Your task to perform on an android device: What's on my calendar tomorrow? Image 0: 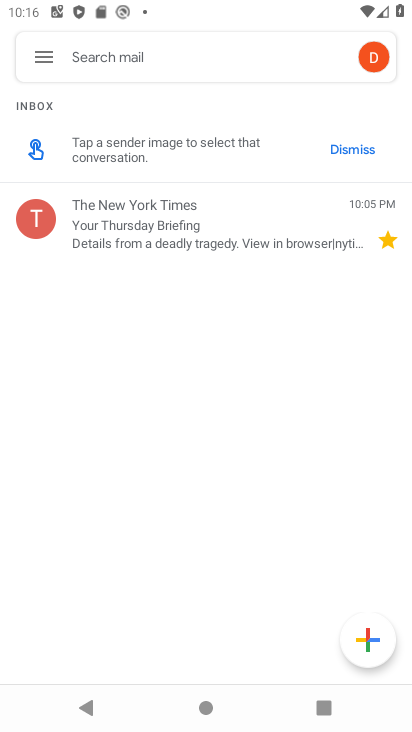
Step 0: press back button
Your task to perform on an android device: What's on my calendar tomorrow? Image 1: 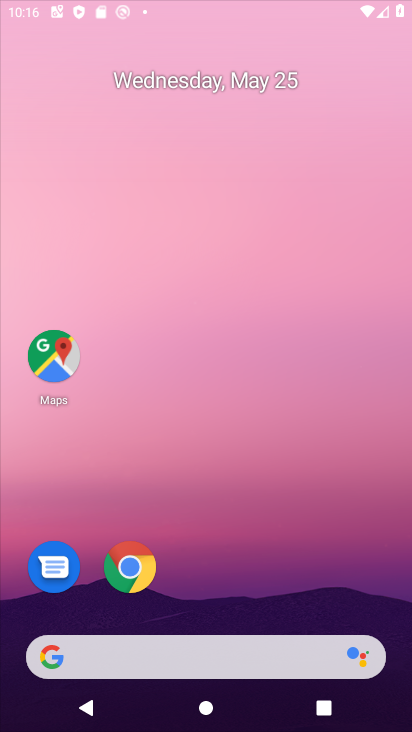
Step 1: press back button
Your task to perform on an android device: What's on my calendar tomorrow? Image 2: 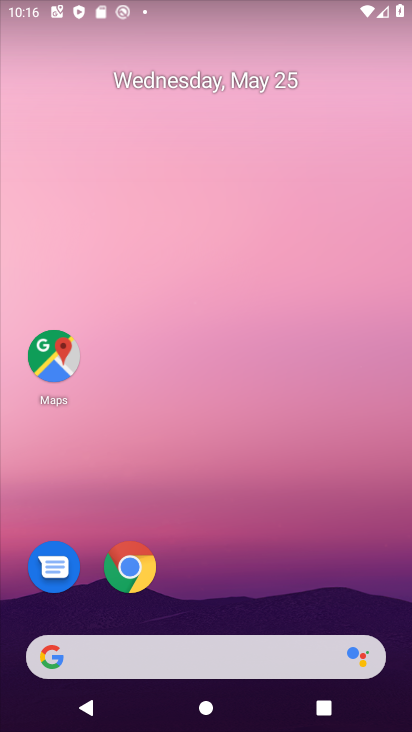
Step 2: press back button
Your task to perform on an android device: What's on my calendar tomorrow? Image 3: 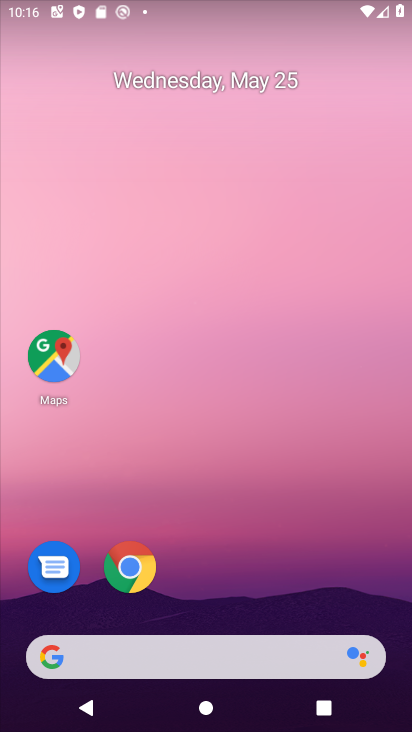
Step 3: drag from (280, 606) to (210, 9)
Your task to perform on an android device: What's on my calendar tomorrow? Image 4: 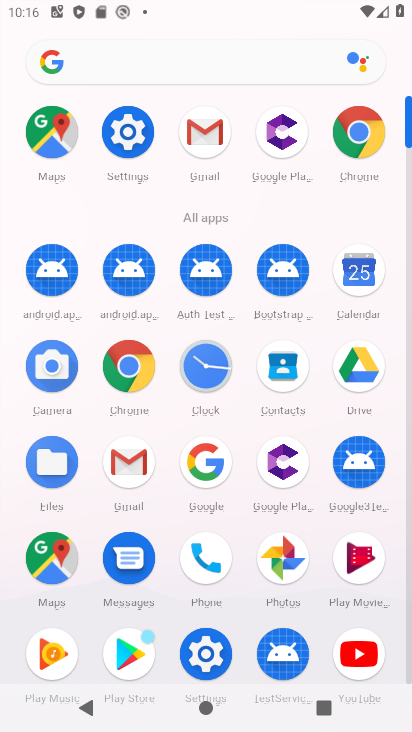
Step 4: click (355, 279)
Your task to perform on an android device: What's on my calendar tomorrow? Image 5: 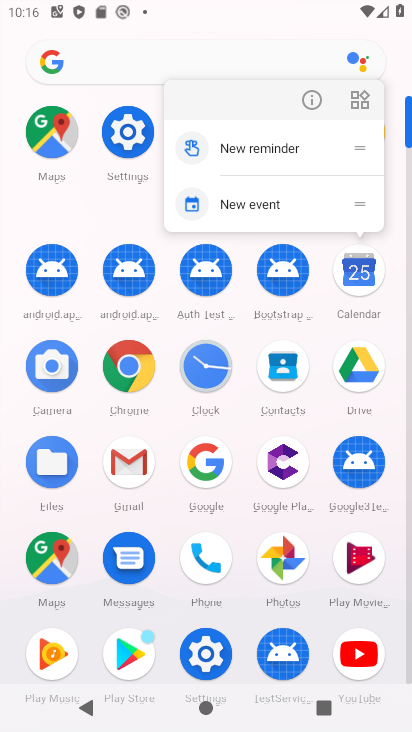
Step 5: click (357, 277)
Your task to perform on an android device: What's on my calendar tomorrow? Image 6: 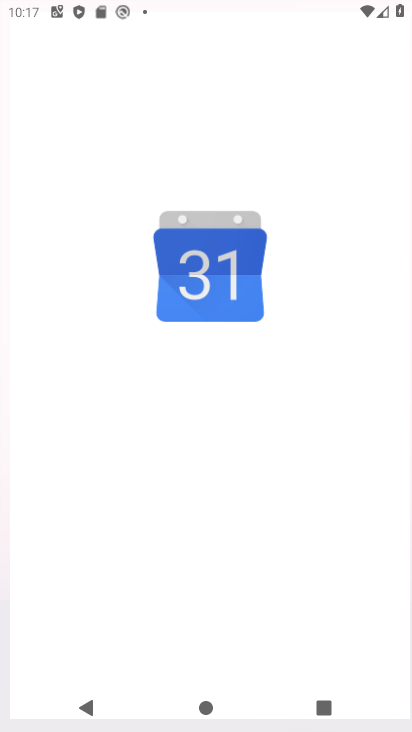
Step 6: click (357, 277)
Your task to perform on an android device: What's on my calendar tomorrow? Image 7: 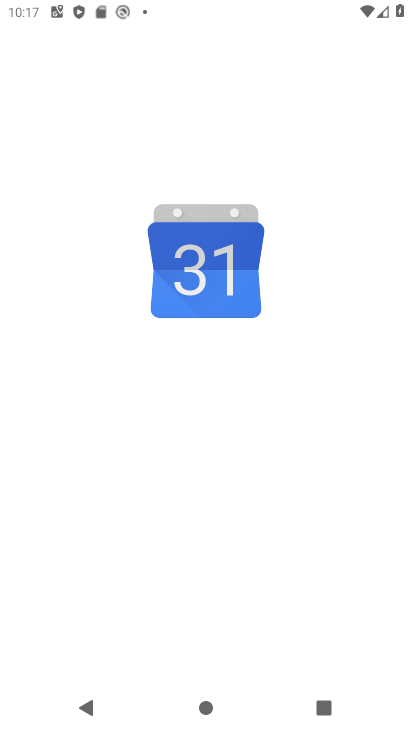
Step 7: click (357, 277)
Your task to perform on an android device: What's on my calendar tomorrow? Image 8: 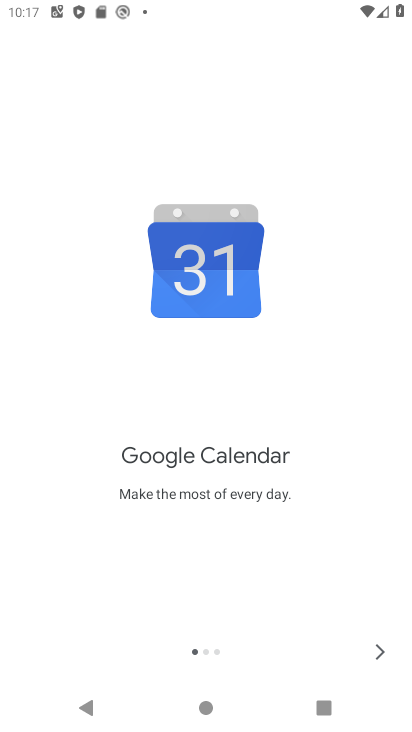
Step 8: click (383, 648)
Your task to perform on an android device: What's on my calendar tomorrow? Image 9: 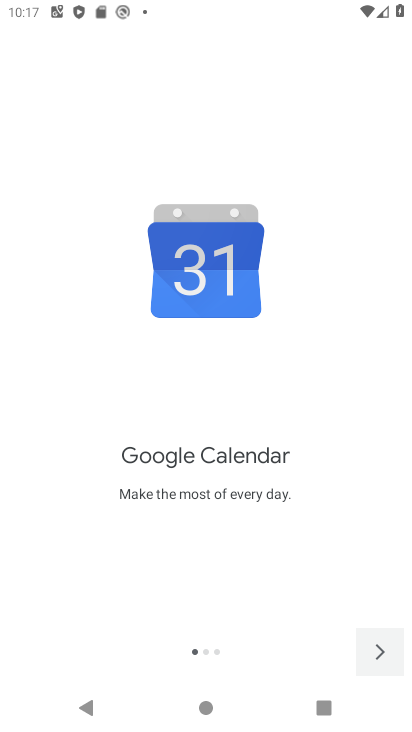
Step 9: click (383, 648)
Your task to perform on an android device: What's on my calendar tomorrow? Image 10: 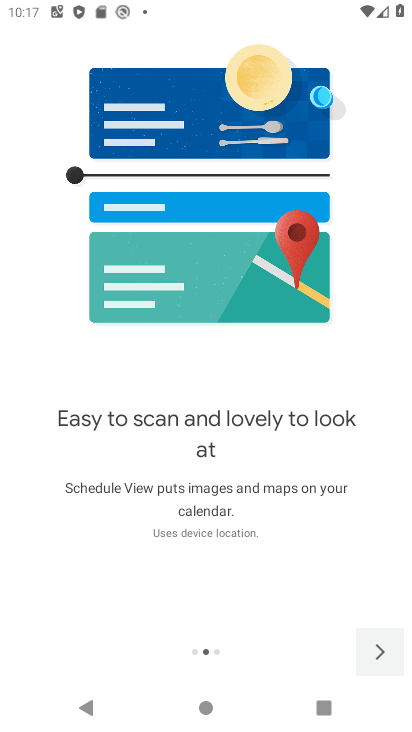
Step 10: click (383, 648)
Your task to perform on an android device: What's on my calendar tomorrow? Image 11: 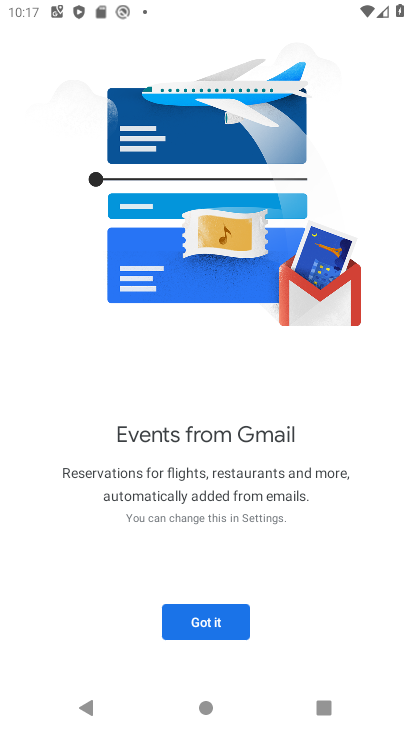
Step 11: click (361, 655)
Your task to perform on an android device: What's on my calendar tomorrow? Image 12: 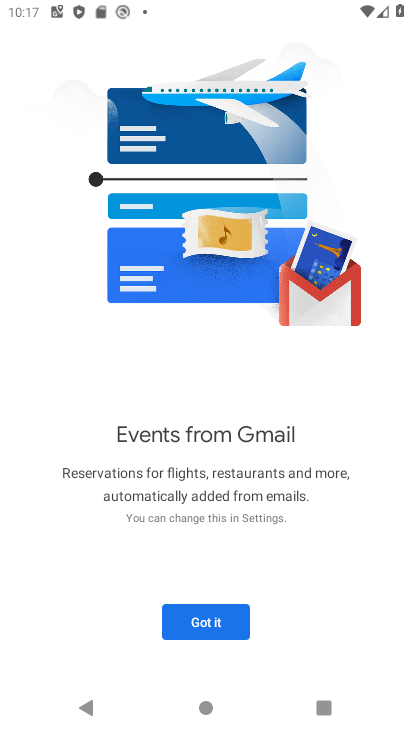
Step 12: click (207, 612)
Your task to perform on an android device: What's on my calendar tomorrow? Image 13: 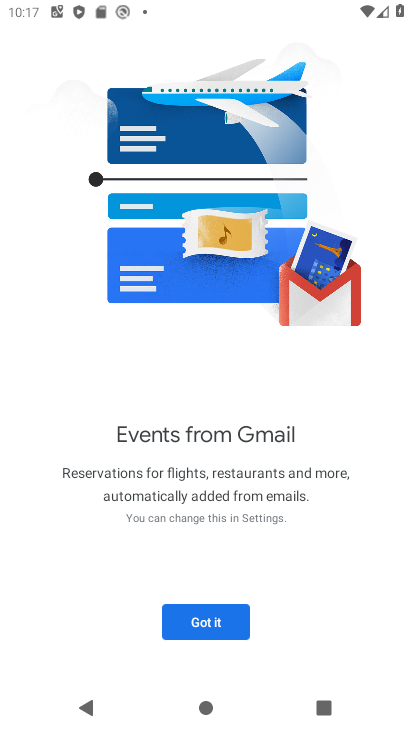
Step 13: click (208, 614)
Your task to perform on an android device: What's on my calendar tomorrow? Image 14: 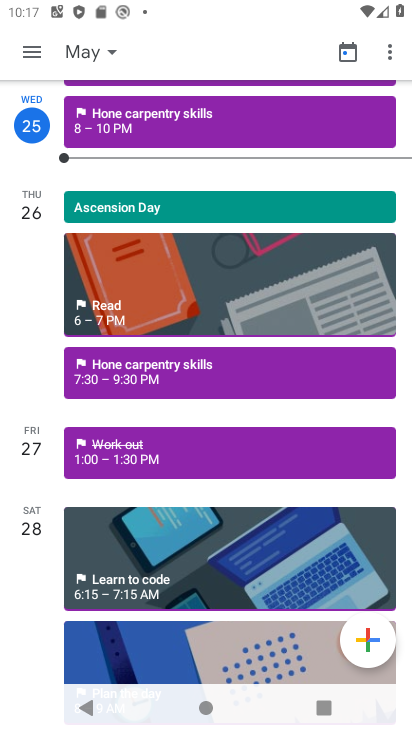
Step 14: click (112, 220)
Your task to perform on an android device: What's on my calendar tomorrow? Image 15: 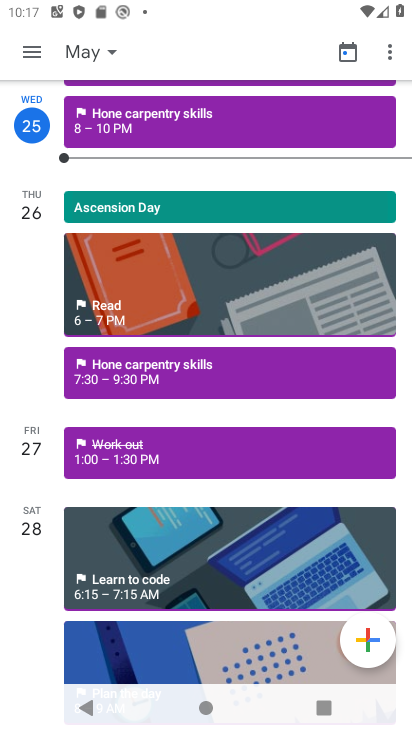
Step 15: click (112, 220)
Your task to perform on an android device: What's on my calendar tomorrow? Image 16: 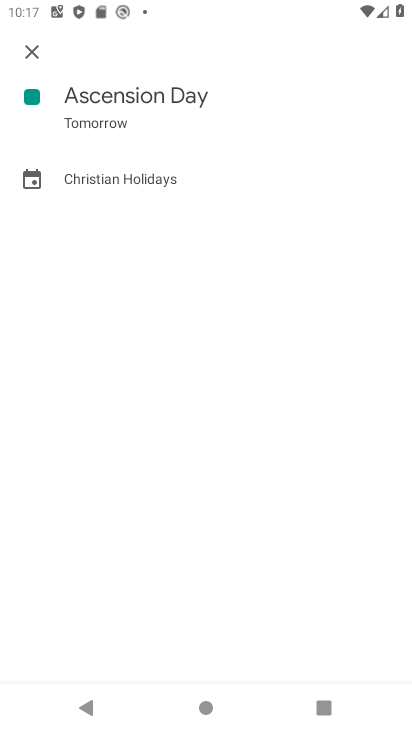
Step 16: click (38, 49)
Your task to perform on an android device: What's on my calendar tomorrow? Image 17: 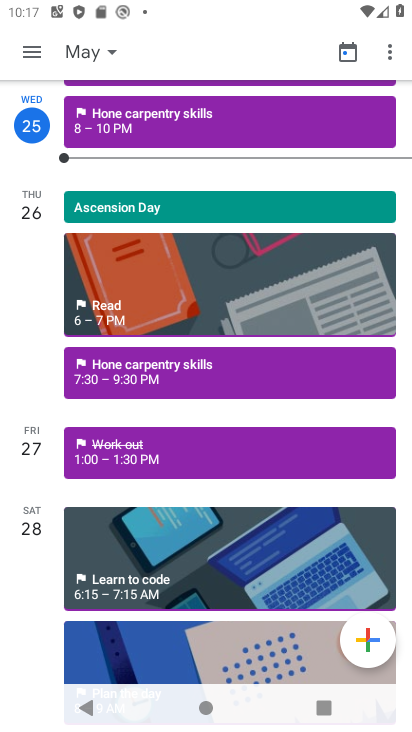
Step 17: click (104, 440)
Your task to perform on an android device: What's on my calendar tomorrow? Image 18: 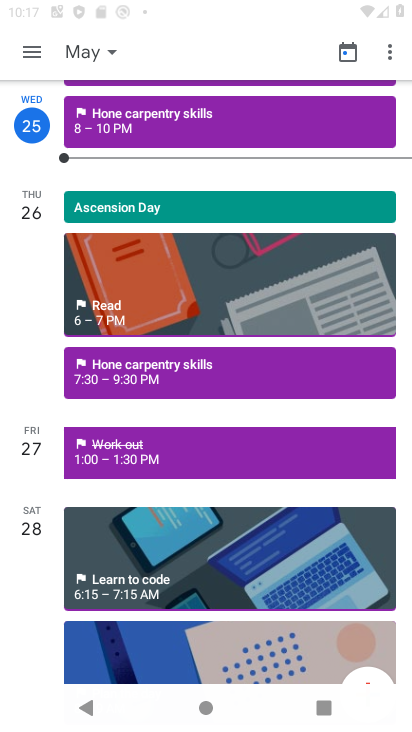
Step 18: click (111, 454)
Your task to perform on an android device: What's on my calendar tomorrow? Image 19: 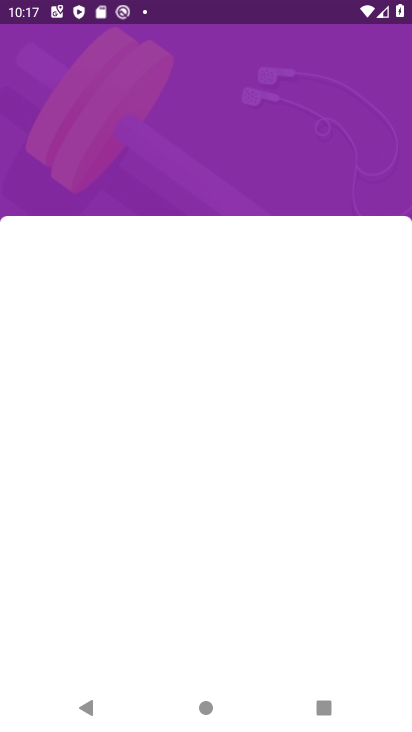
Step 19: click (121, 458)
Your task to perform on an android device: What's on my calendar tomorrow? Image 20: 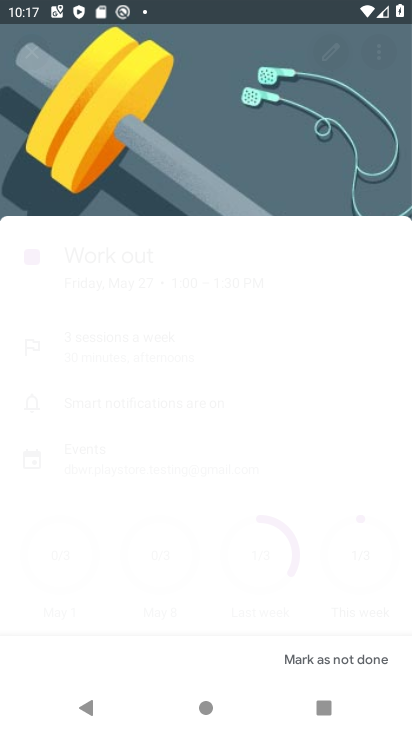
Step 20: click (129, 462)
Your task to perform on an android device: What's on my calendar tomorrow? Image 21: 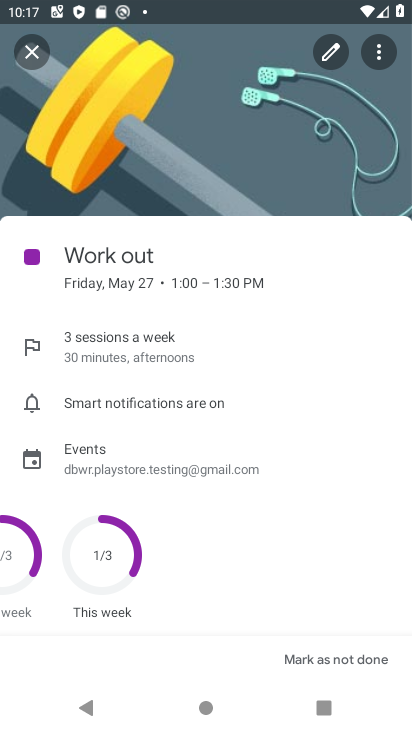
Step 21: task complete